Your task to perform on an android device: When is my next appointment? Image 0: 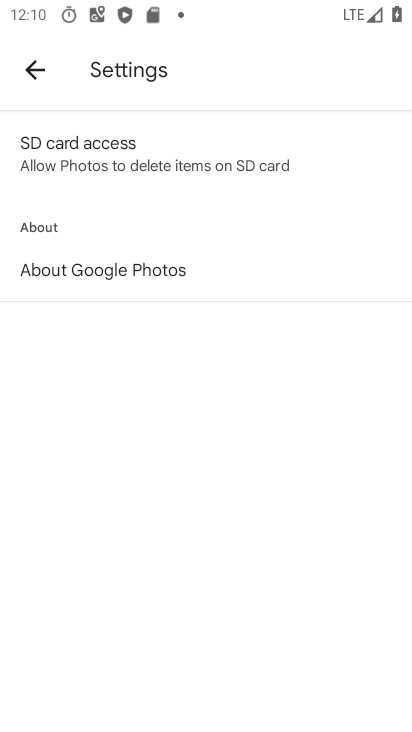
Step 0: press home button
Your task to perform on an android device: When is my next appointment? Image 1: 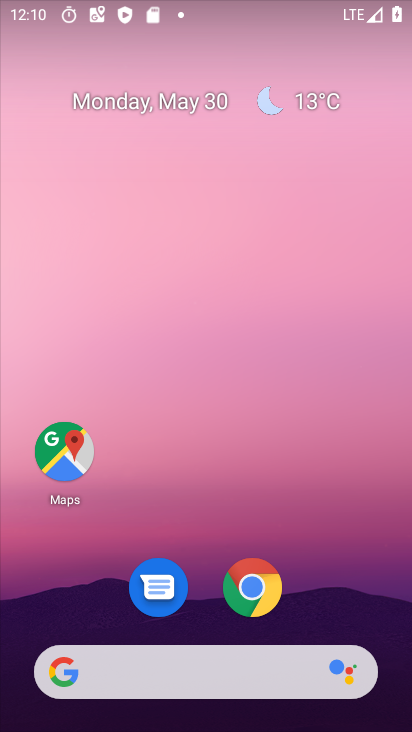
Step 1: drag from (320, 548) to (311, 142)
Your task to perform on an android device: When is my next appointment? Image 2: 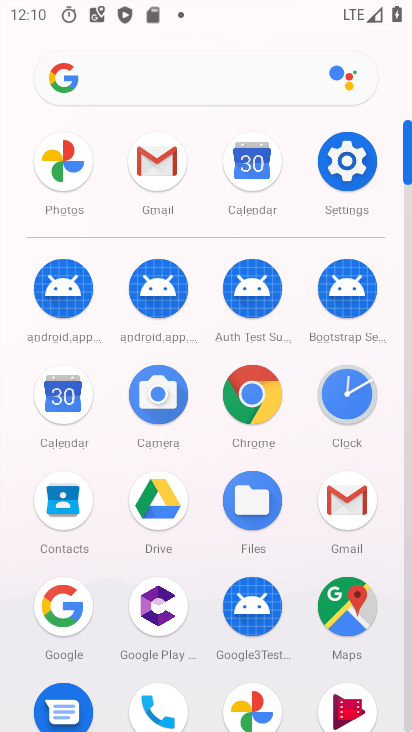
Step 2: click (254, 164)
Your task to perform on an android device: When is my next appointment? Image 3: 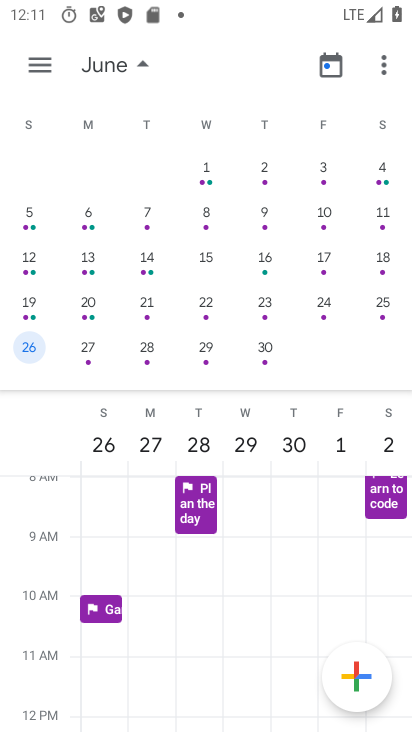
Step 3: drag from (61, 252) to (374, 276)
Your task to perform on an android device: When is my next appointment? Image 4: 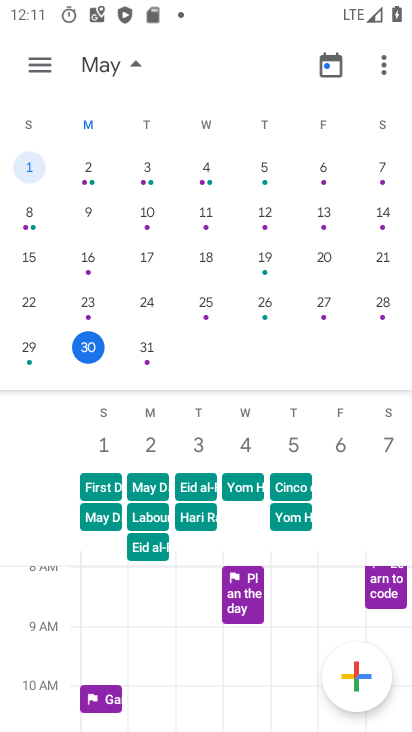
Step 4: click (90, 340)
Your task to perform on an android device: When is my next appointment? Image 5: 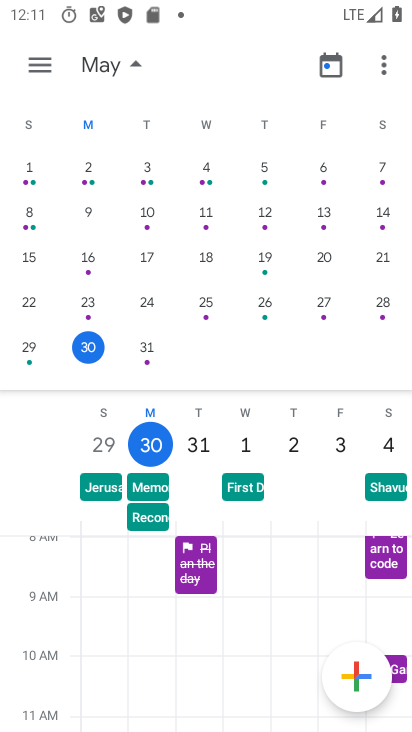
Step 5: task complete